Your task to perform on an android device: Do I have any events today? Image 0: 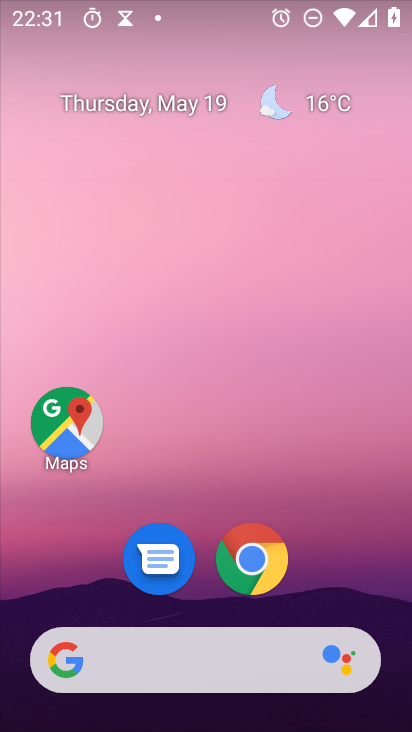
Step 0: drag from (218, 724) to (218, 202)
Your task to perform on an android device: Do I have any events today? Image 1: 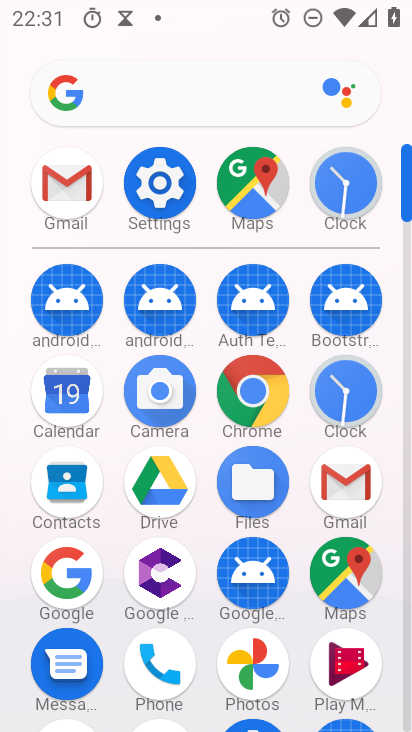
Step 1: click (64, 401)
Your task to perform on an android device: Do I have any events today? Image 2: 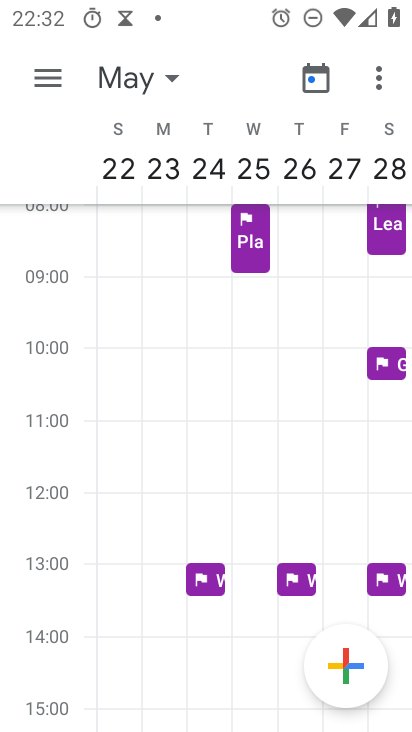
Step 2: click (114, 73)
Your task to perform on an android device: Do I have any events today? Image 3: 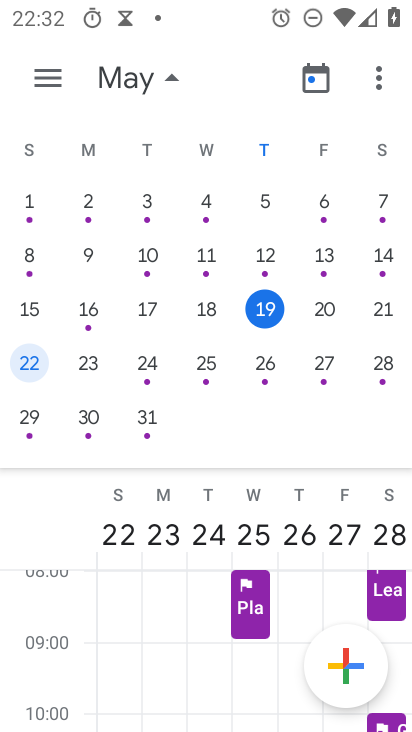
Step 3: click (266, 308)
Your task to perform on an android device: Do I have any events today? Image 4: 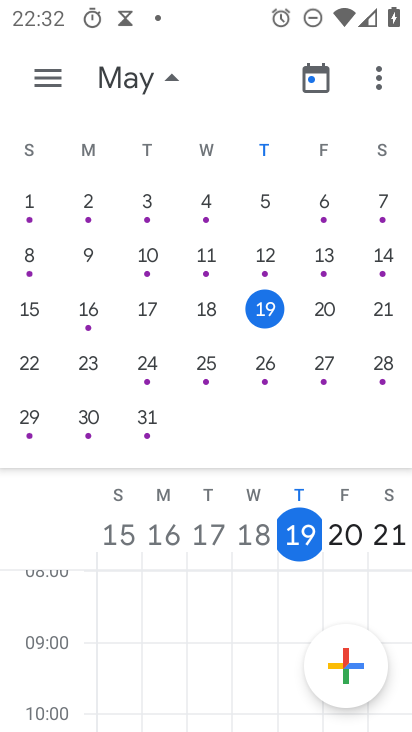
Step 4: click (266, 308)
Your task to perform on an android device: Do I have any events today? Image 5: 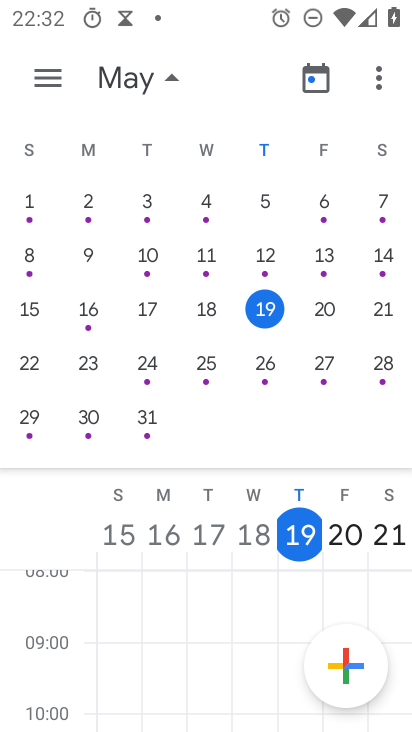
Step 5: click (266, 308)
Your task to perform on an android device: Do I have any events today? Image 6: 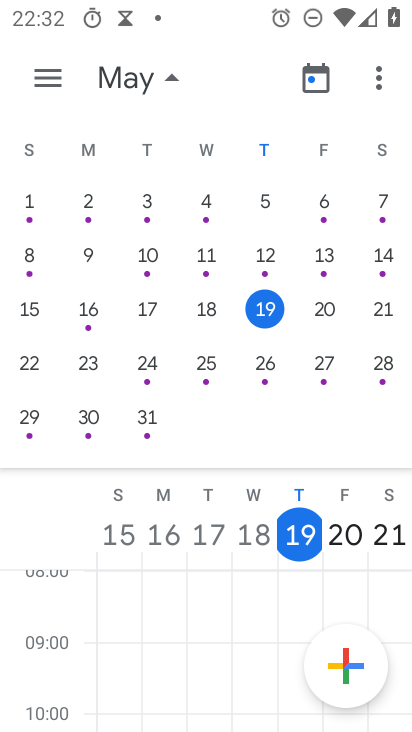
Step 6: click (291, 526)
Your task to perform on an android device: Do I have any events today? Image 7: 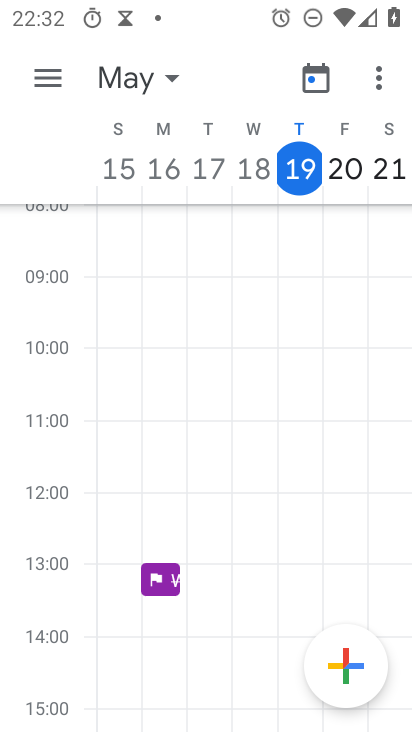
Step 7: task complete